Your task to perform on an android device: find photos in the google photos app Image 0: 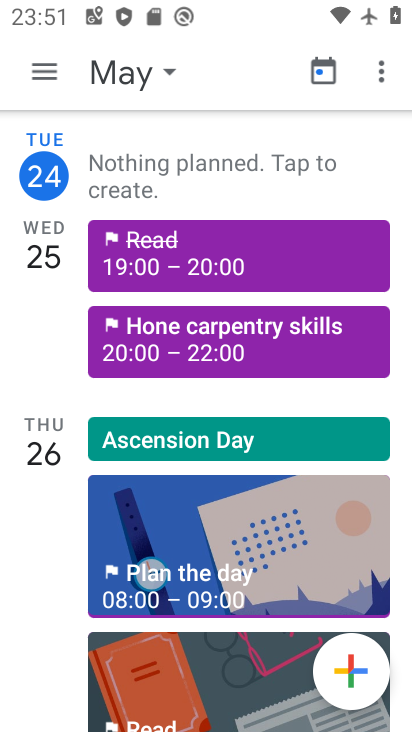
Step 0: press home button
Your task to perform on an android device: find photos in the google photos app Image 1: 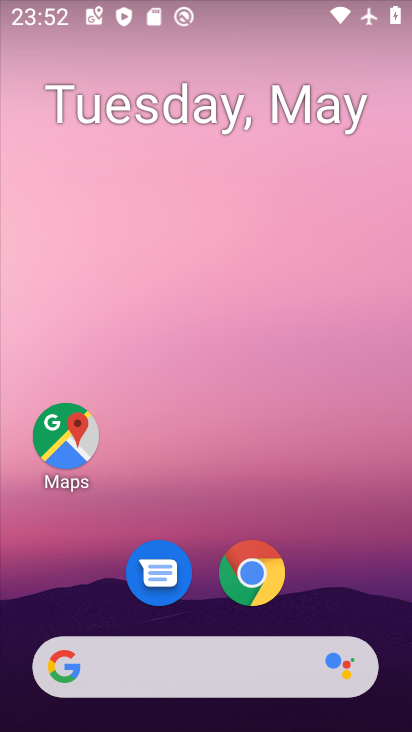
Step 1: drag from (247, 545) to (208, 21)
Your task to perform on an android device: find photos in the google photos app Image 2: 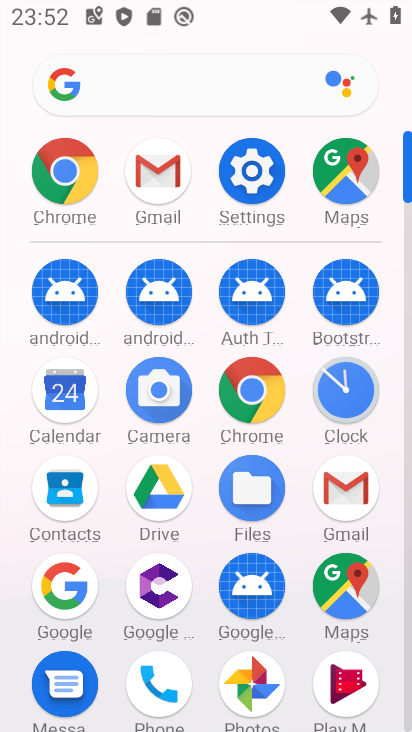
Step 2: click (256, 675)
Your task to perform on an android device: find photos in the google photos app Image 3: 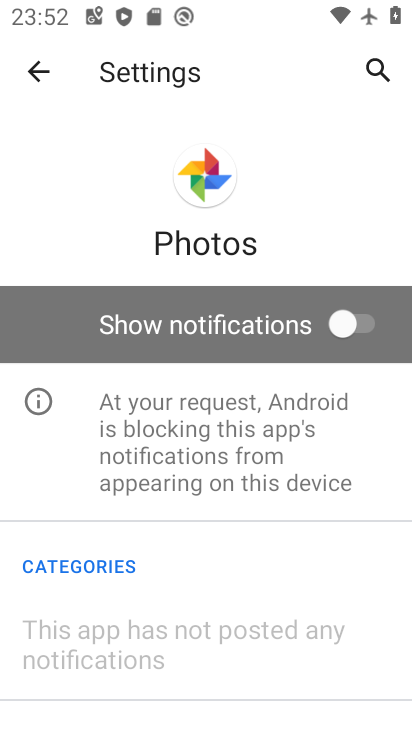
Step 3: click (43, 87)
Your task to perform on an android device: find photos in the google photos app Image 4: 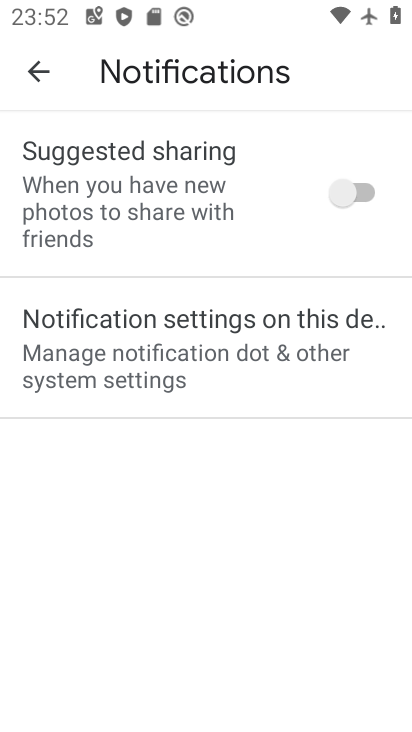
Step 4: click (42, 88)
Your task to perform on an android device: find photos in the google photos app Image 5: 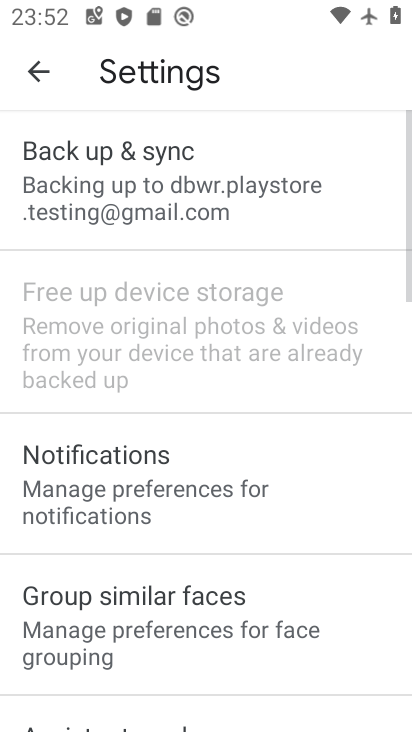
Step 5: click (42, 73)
Your task to perform on an android device: find photos in the google photos app Image 6: 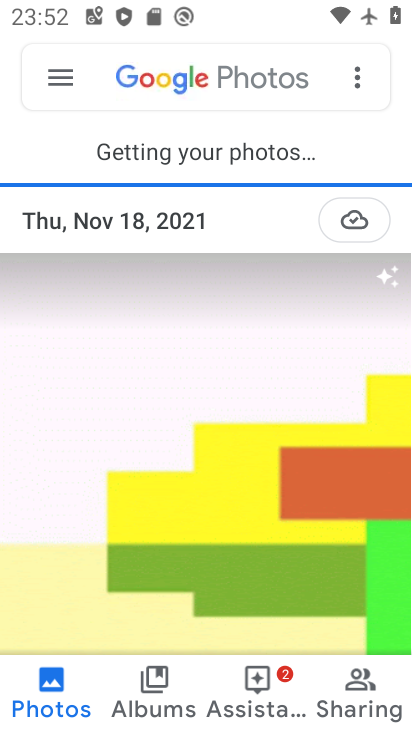
Step 6: click (149, 676)
Your task to perform on an android device: find photos in the google photos app Image 7: 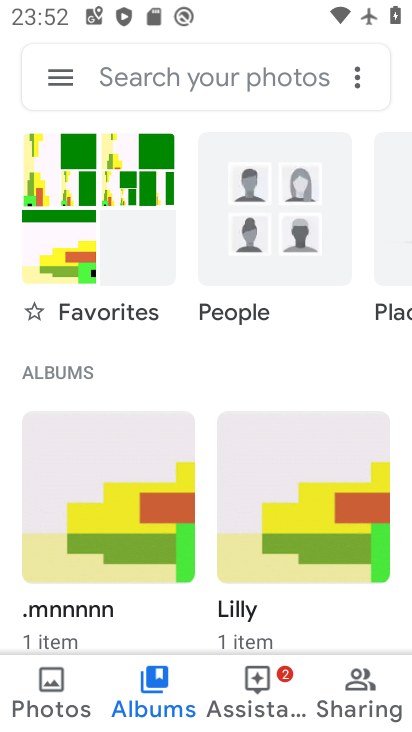
Step 7: click (54, 689)
Your task to perform on an android device: find photos in the google photos app Image 8: 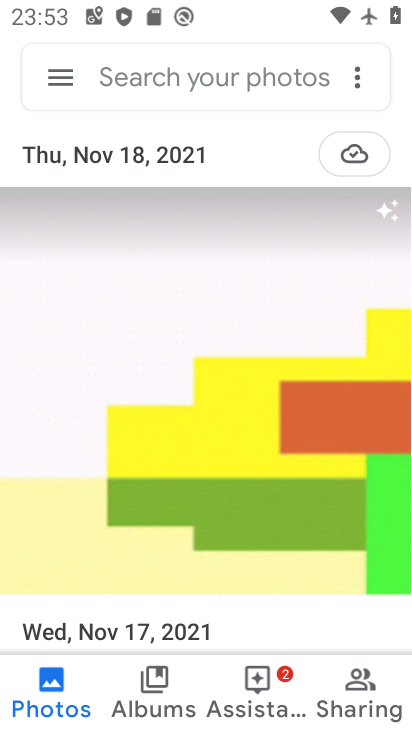
Step 8: task complete